Your task to perform on an android device: Open eBay Image 0: 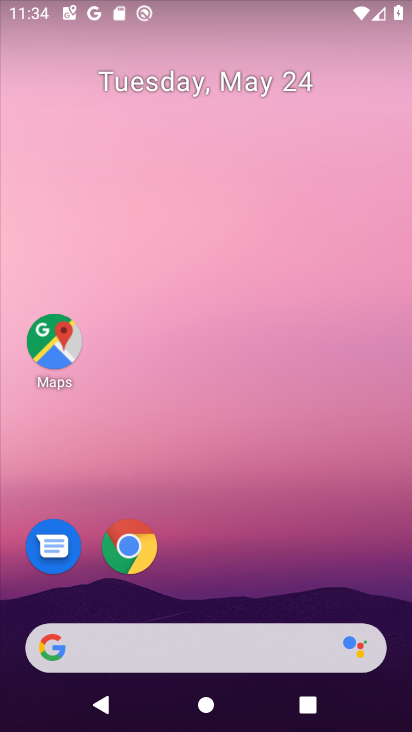
Step 0: click (130, 545)
Your task to perform on an android device: Open eBay Image 1: 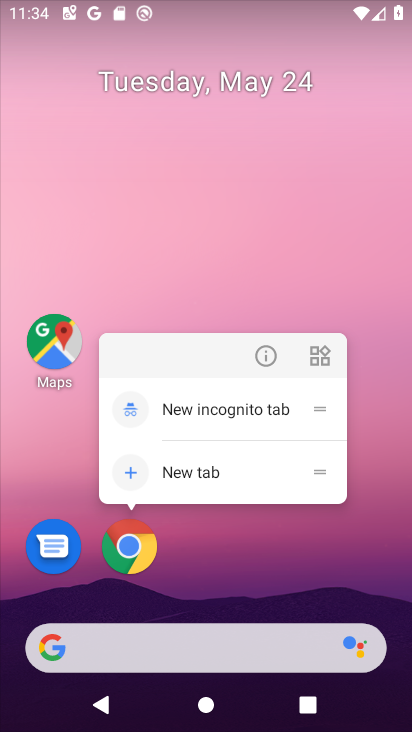
Step 1: click (134, 561)
Your task to perform on an android device: Open eBay Image 2: 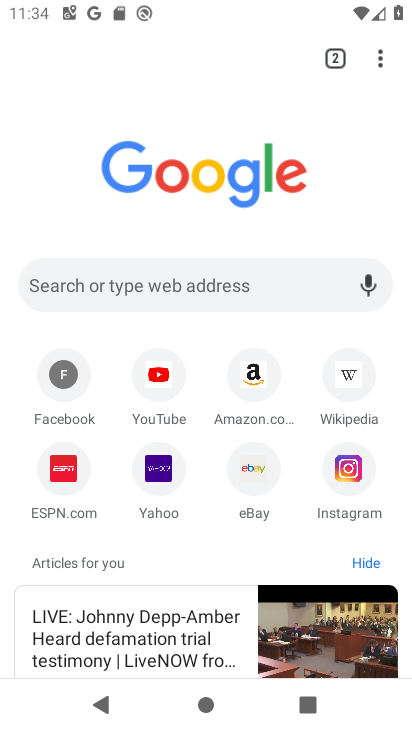
Step 2: click (261, 476)
Your task to perform on an android device: Open eBay Image 3: 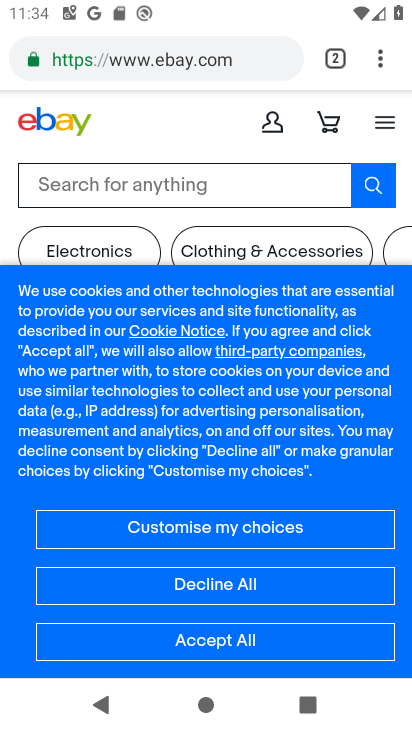
Step 3: task complete